Your task to perform on an android device: Do I have any events this weekend? Image 0: 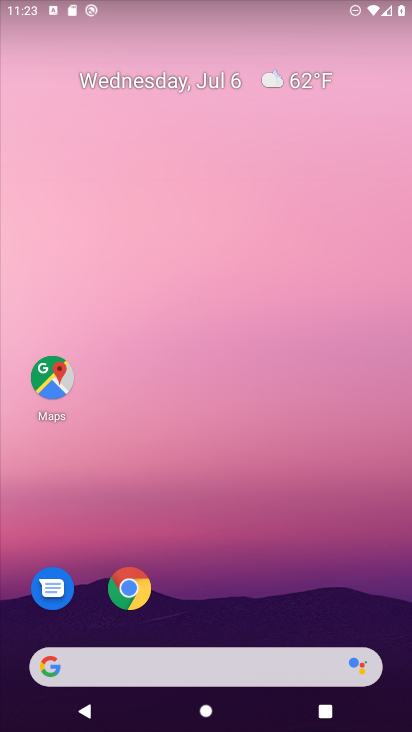
Step 0: drag from (386, 624) to (342, 116)
Your task to perform on an android device: Do I have any events this weekend? Image 1: 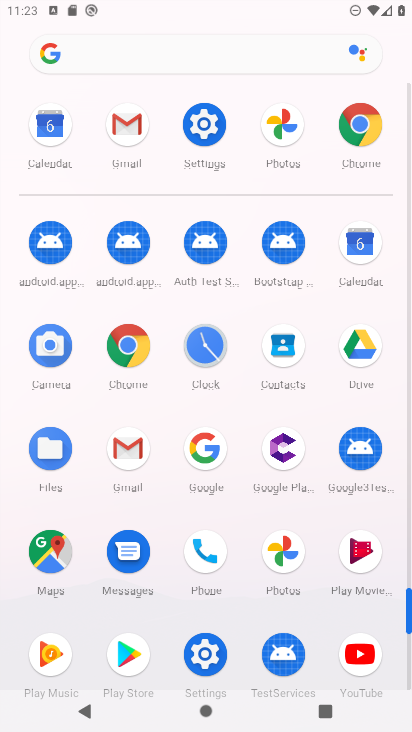
Step 1: click (356, 239)
Your task to perform on an android device: Do I have any events this weekend? Image 2: 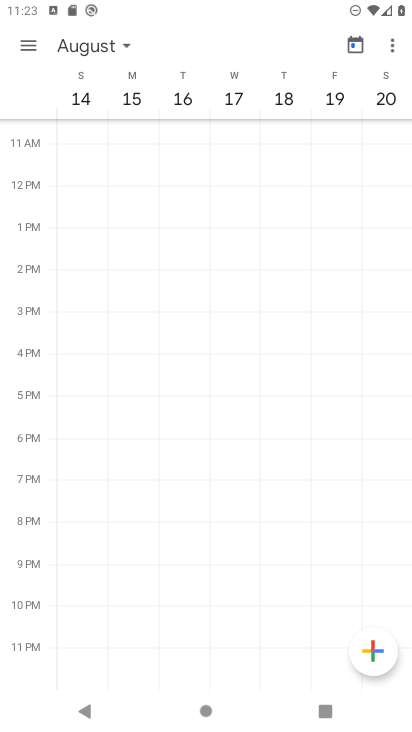
Step 2: click (131, 41)
Your task to perform on an android device: Do I have any events this weekend? Image 3: 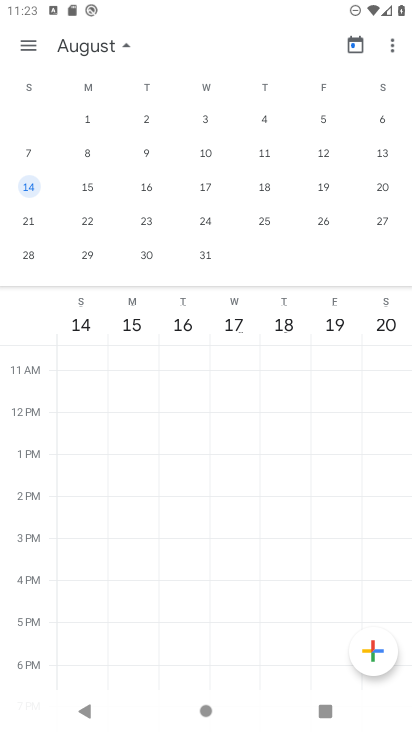
Step 3: drag from (23, 228) to (364, 221)
Your task to perform on an android device: Do I have any events this weekend? Image 4: 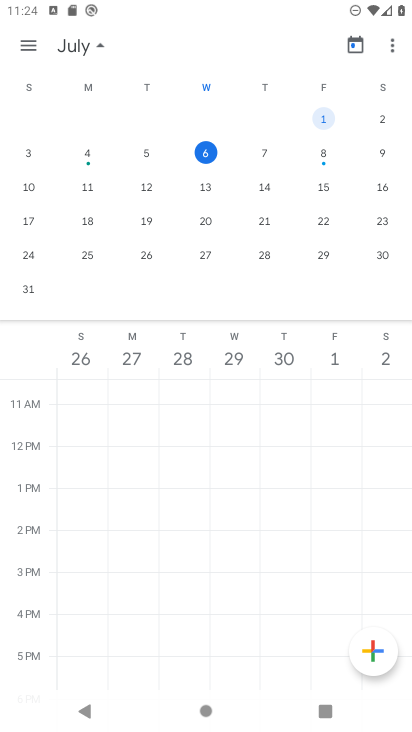
Step 4: click (30, 155)
Your task to perform on an android device: Do I have any events this weekend? Image 5: 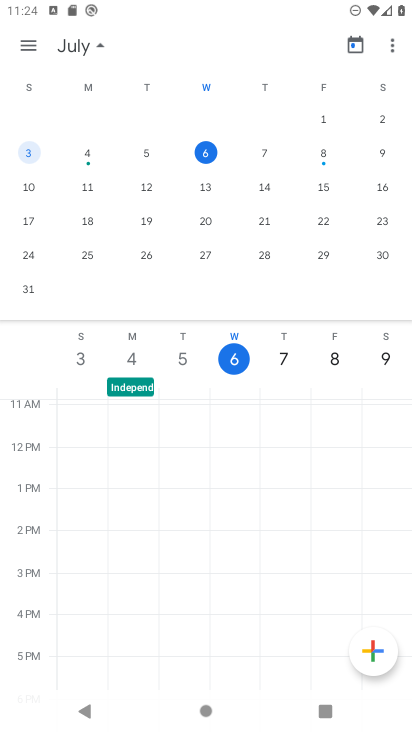
Step 5: task complete